Your task to perform on an android device: delete location history Image 0: 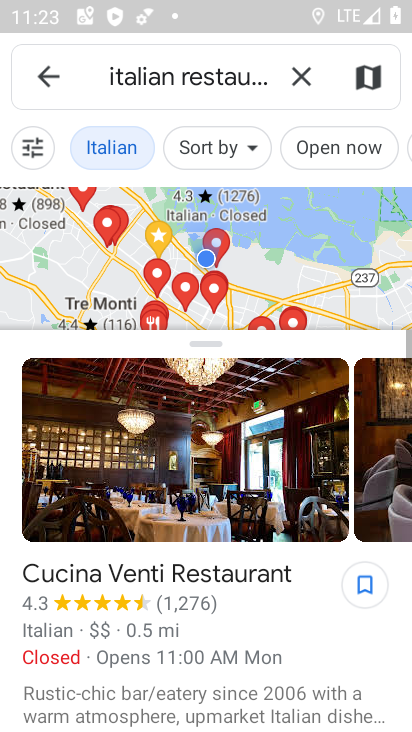
Step 0: press home button
Your task to perform on an android device: delete location history Image 1: 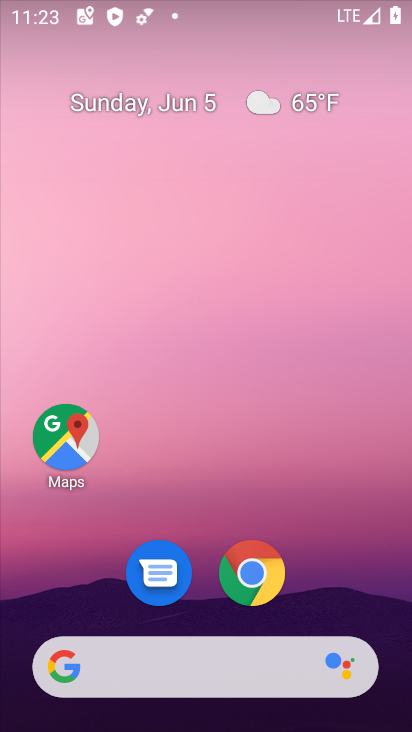
Step 1: drag from (194, 531) to (199, 65)
Your task to perform on an android device: delete location history Image 2: 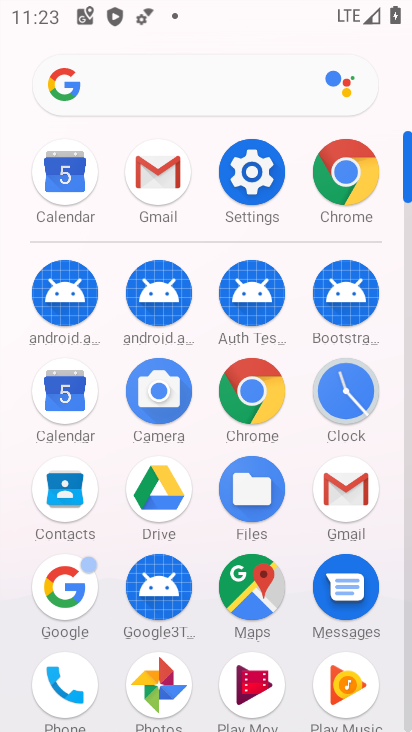
Step 2: drag from (190, 260) to (221, 0)
Your task to perform on an android device: delete location history Image 3: 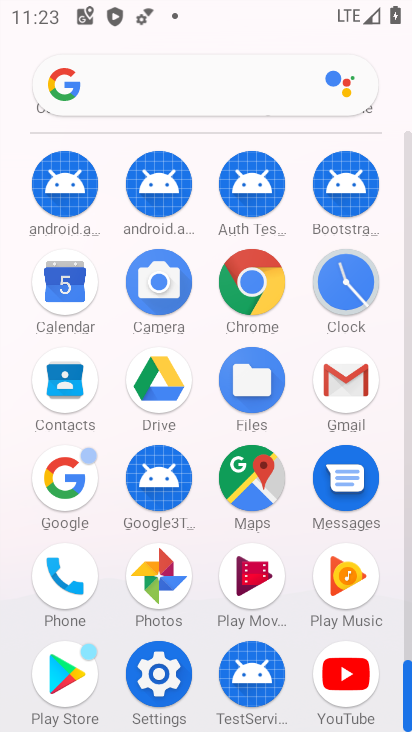
Step 3: click (164, 696)
Your task to perform on an android device: delete location history Image 4: 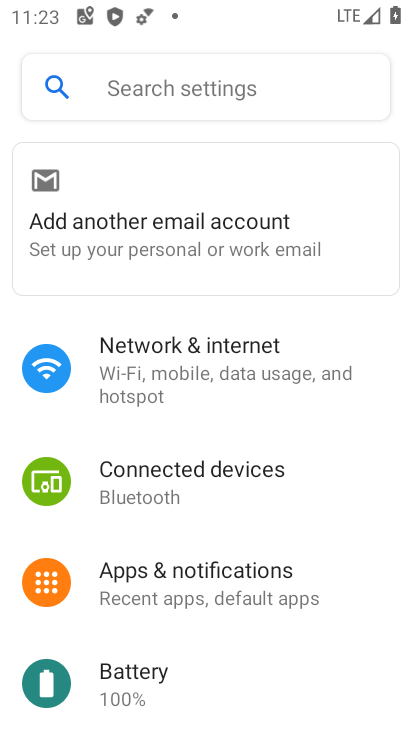
Step 4: drag from (201, 577) to (229, 238)
Your task to perform on an android device: delete location history Image 5: 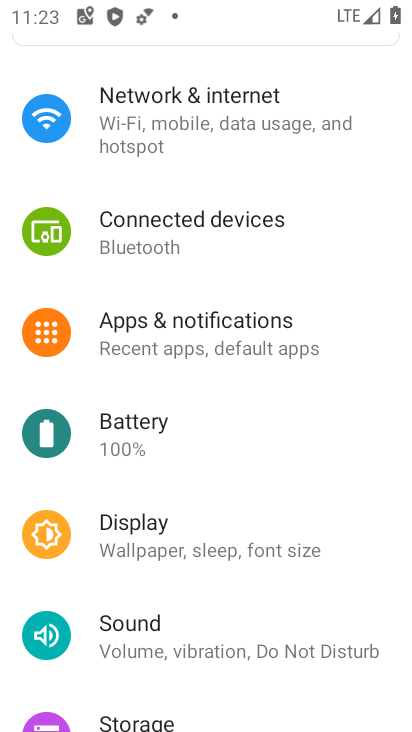
Step 5: drag from (203, 553) to (239, 187)
Your task to perform on an android device: delete location history Image 6: 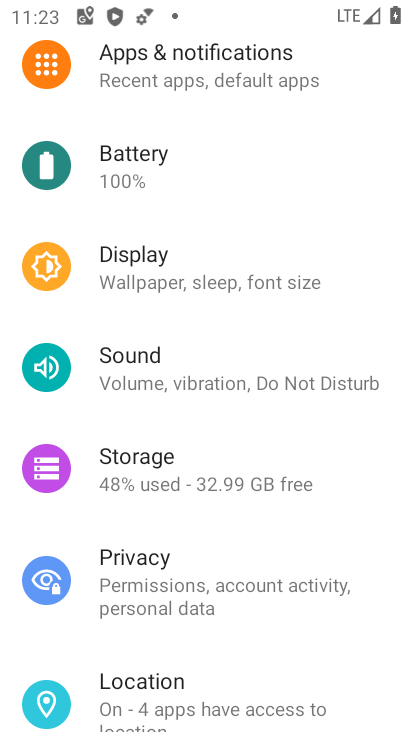
Step 6: drag from (172, 591) to (209, 273)
Your task to perform on an android device: delete location history Image 7: 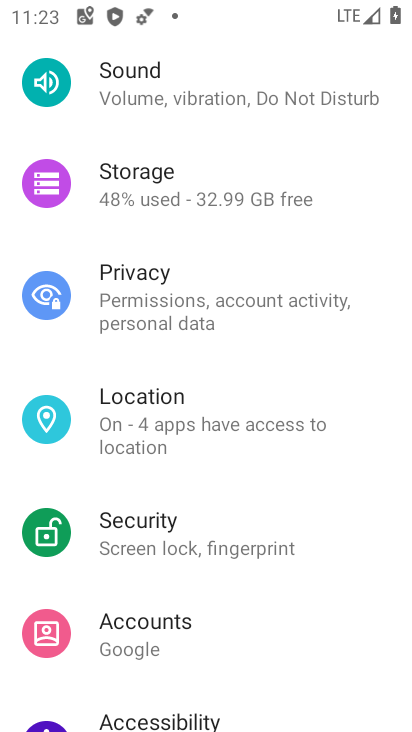
Step 7: click (160, 432)
Your task to perform on an android device: delete location history Image 8: 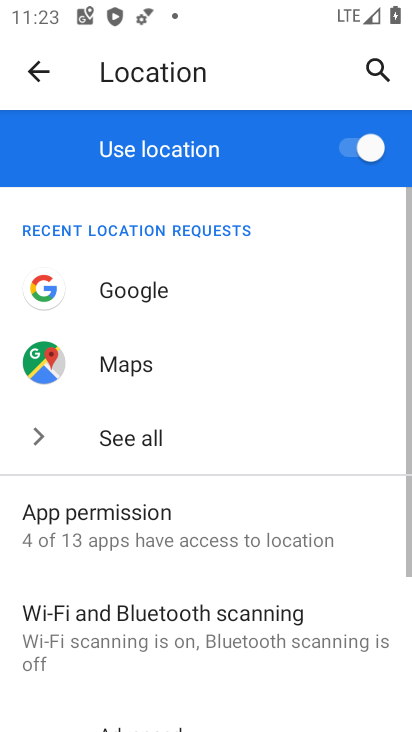
Step 8: drag from (154, 606) to (245, 149)
Your task to perform on an android device: delete location history Image 9: 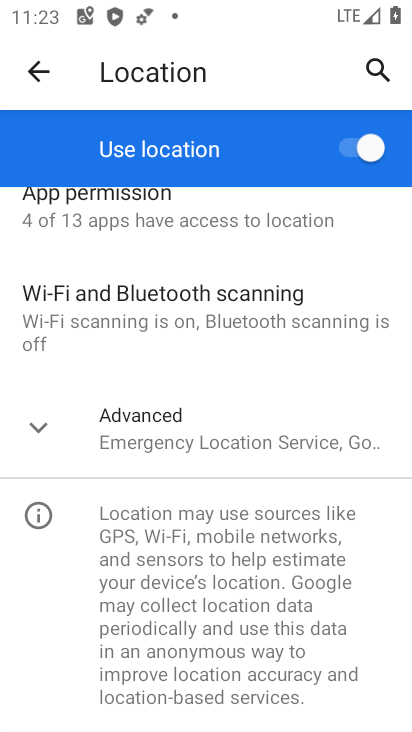
Step 9: click (211, 464)
Your task to perform on an android device: delete location history Image 10: 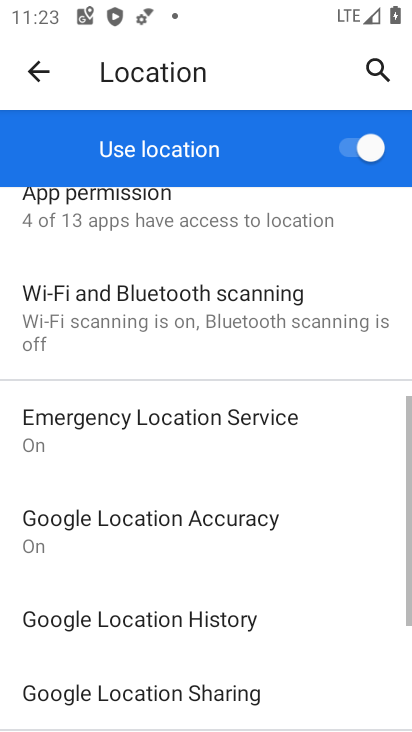
Step 10: drag from (211, 462) to (233, 205)
Your task to perform on an android device: delete location history Image 11: 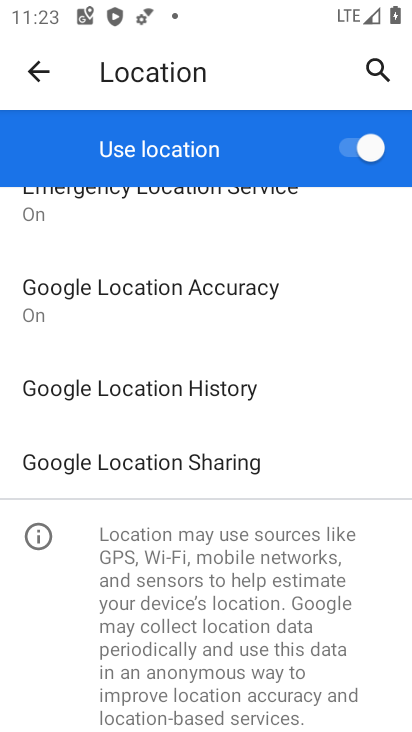
Step 11: click (220, 388)
Your task to perform on an android device: delete location history Image 12: 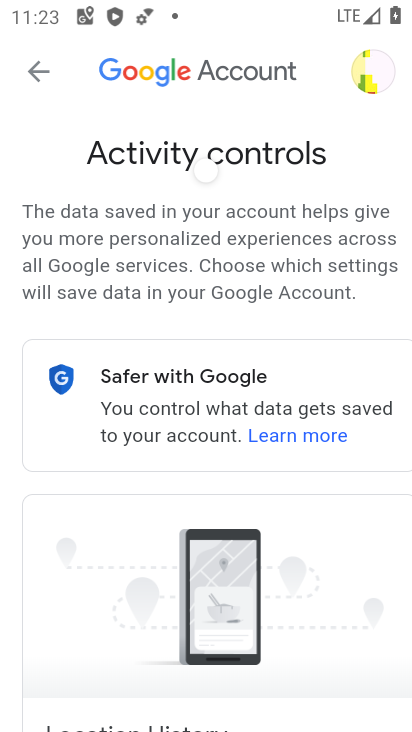
Step 12: drag from (244, 474) to (280, 102)
Your task to perform on an android device: delete location history Image 13: 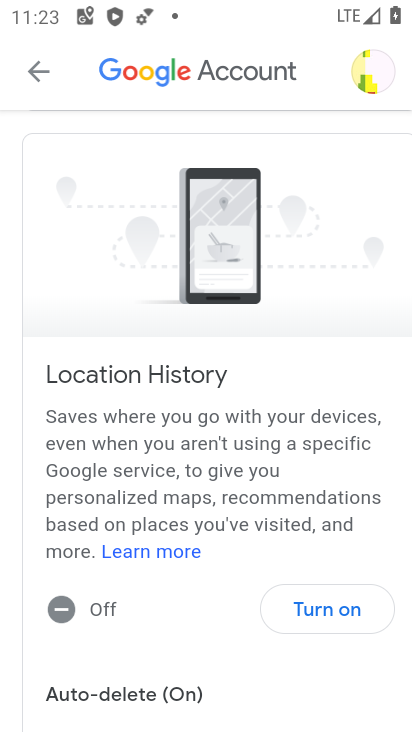
Step 13: drag from (232, 536) to (241, 249)
Your task to perform on an android device: delete location history Image 14: 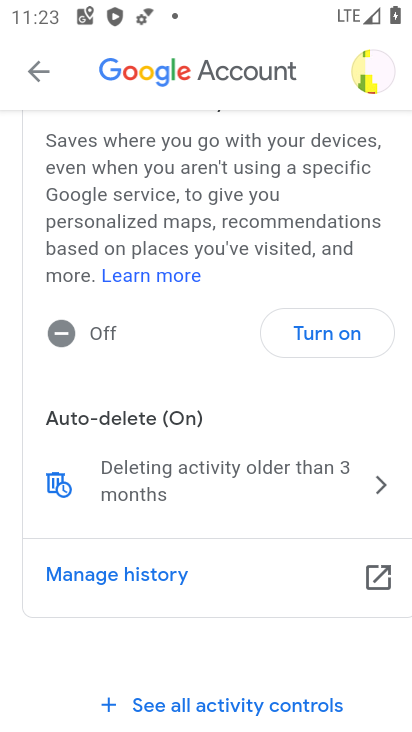
Step 14: click (293, 493)
Your task to perform on an android device: delete location history Image 15: 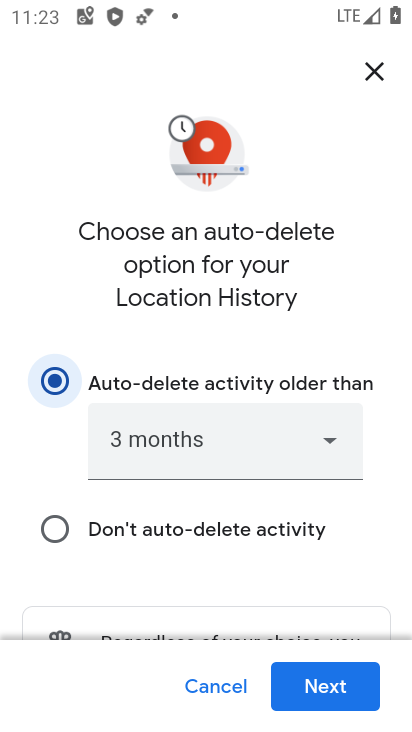
Step 15: click (228, 450)
Your task to perform on an android device: delete location history Image 16: 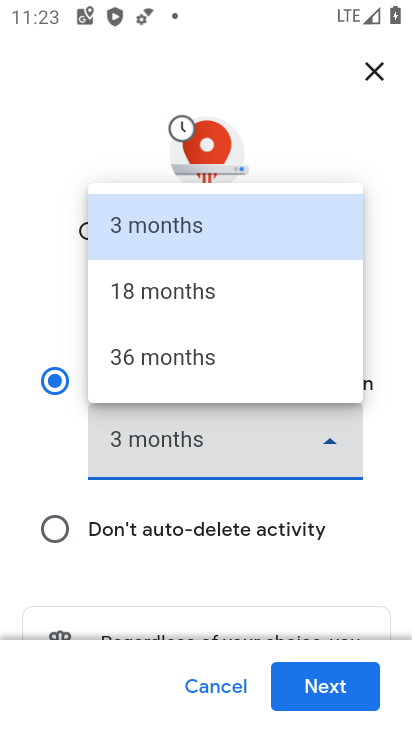
Step 16: click (223, 308)
Your task to perform on an android device: delete location history Image 17: 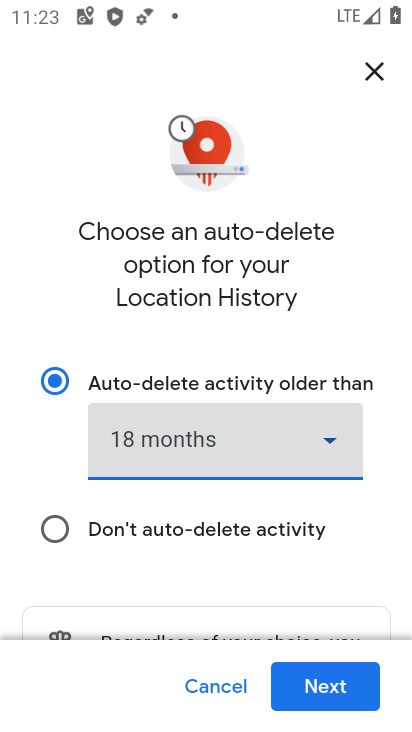
Step 17: click (313, 703)
Your task to perform on an android device: delete location history Image 18: 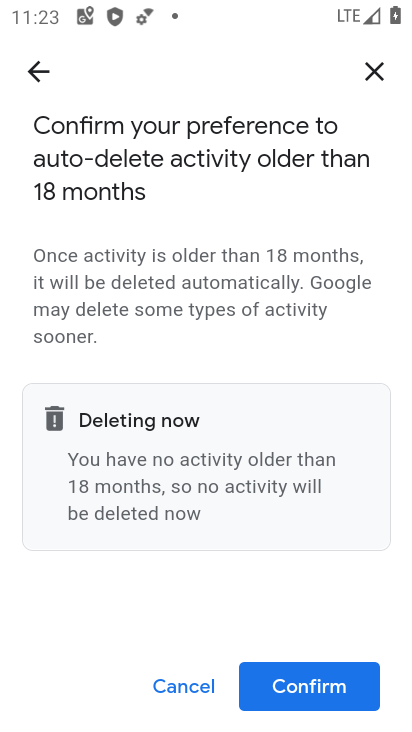
Step 18: click (324, 689)
Your task to perform on an android device: delete location history Image 19: 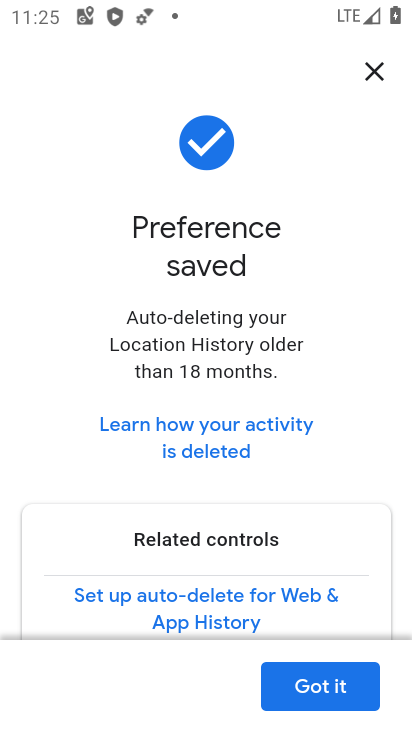
Step 19: click (333, 668)
Your task to perform on an android device: delete location history Image 20: 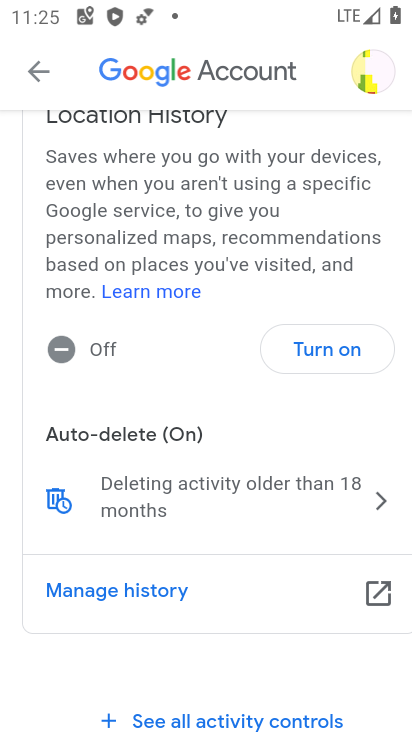
Step 20: task complete